Your task to perform on an android device: Open Youtube and go to the subscriptions tab Image 0: 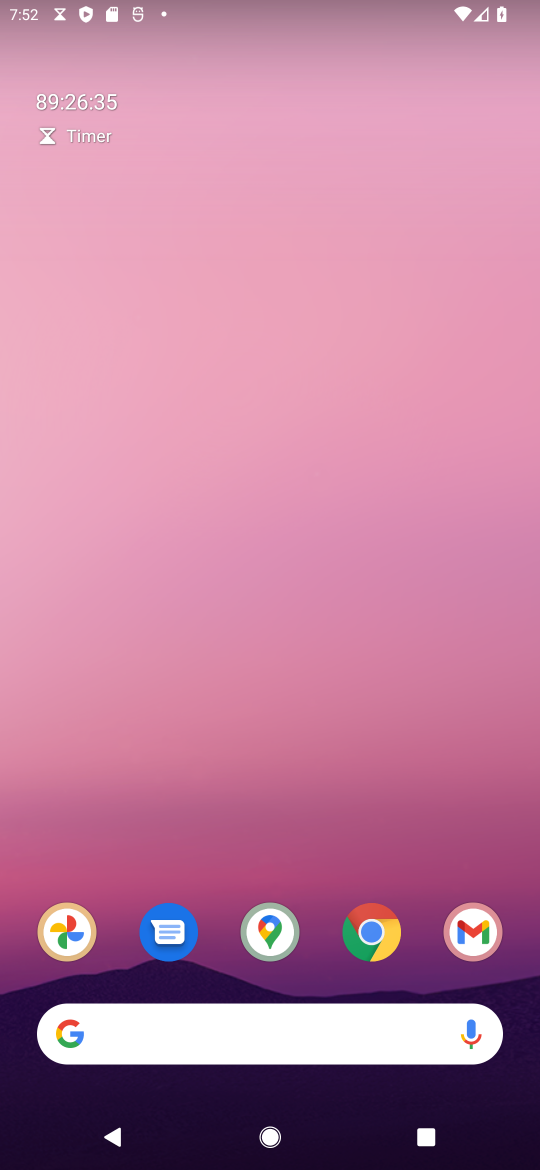
Step 0: drag from (269, 886) to (225, 244)
Your task to perform on an android device: Open Youtube and go to the subscriptions tab Image 1: 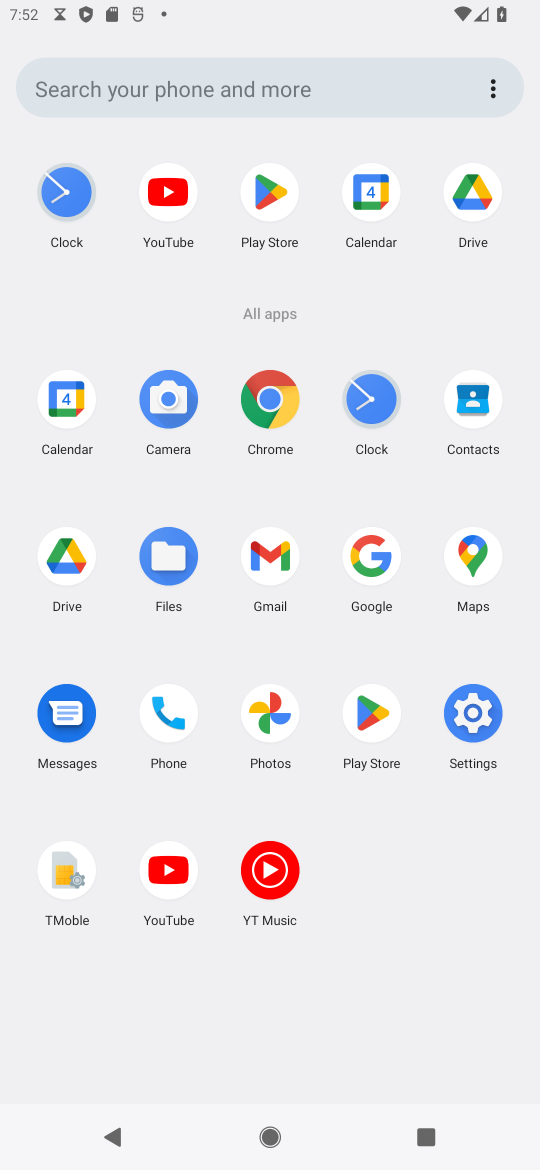
Step 1: click (162, 875)
Your task to perform on an android device: Open Youtube and go to the subscriptions tab Image 2: 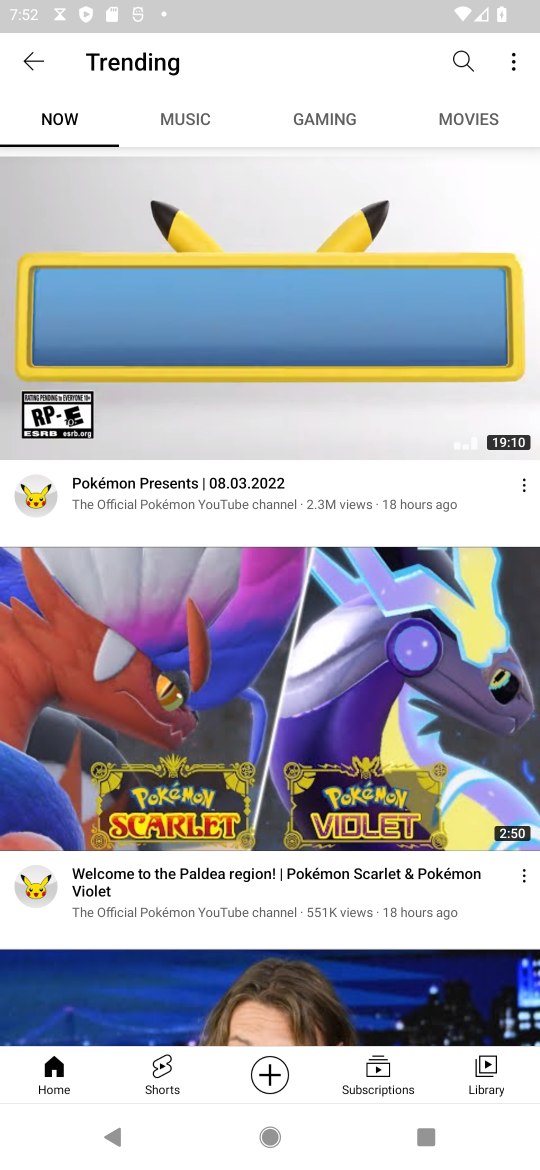
Step 2: click (378, 1082)
Your task to perform on an android device: Open Youtube and go to the subscriptions tab Image 3: 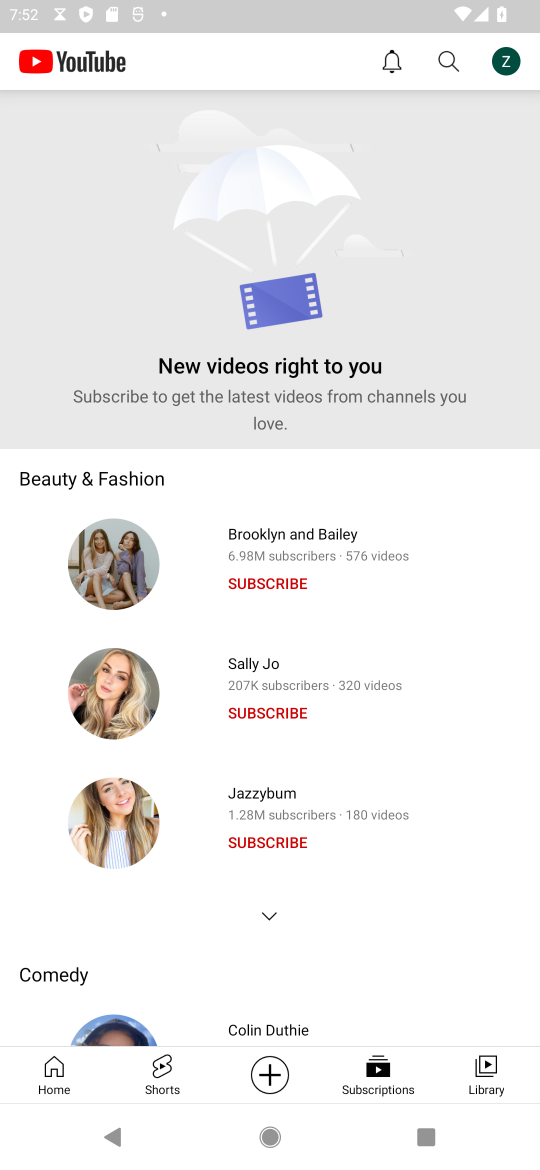
Step 3: task complete